Your task to perform on an android device: uninstall "Paramount+ | Peak Streaming" Image 0: 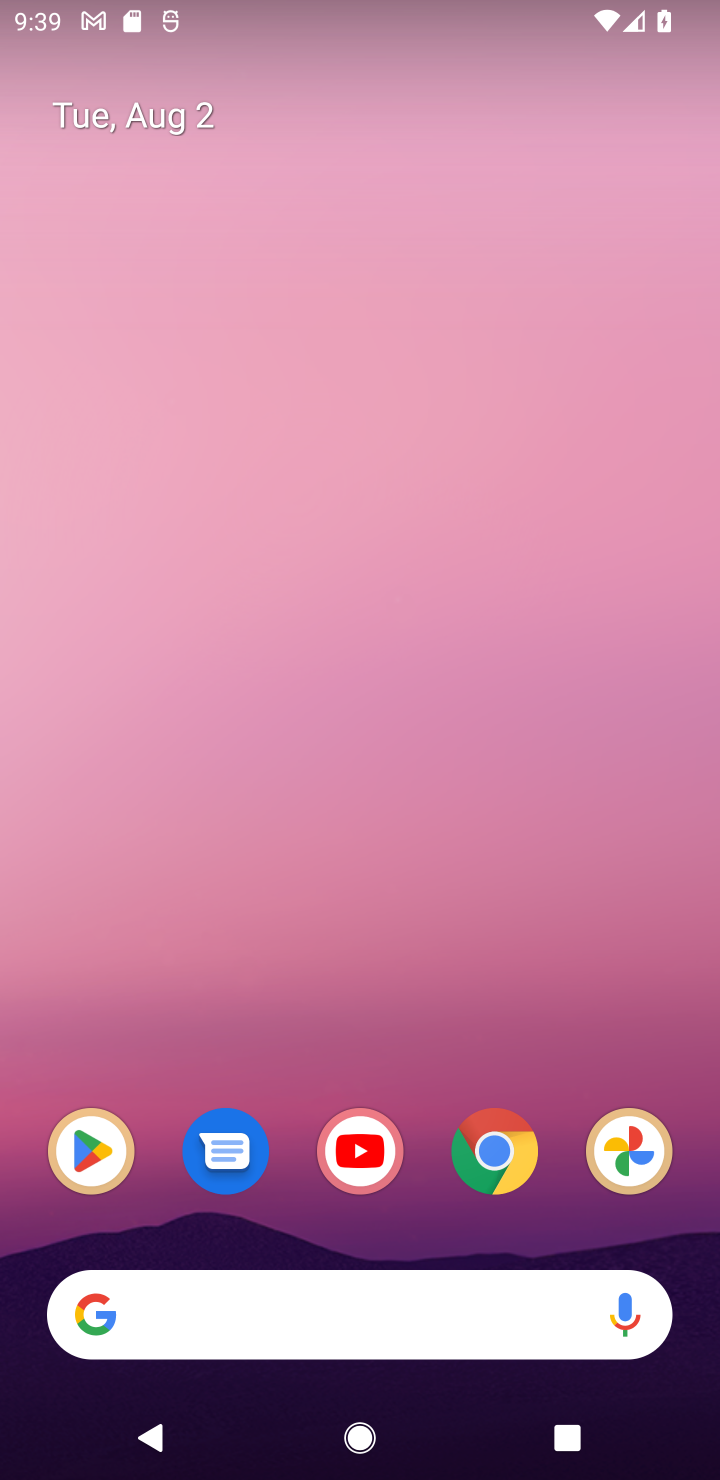
Step 0: click (101, 1153)
Your task to perform on an android device: uninstall "Paramount+ | Peak Streaming" Image 1: 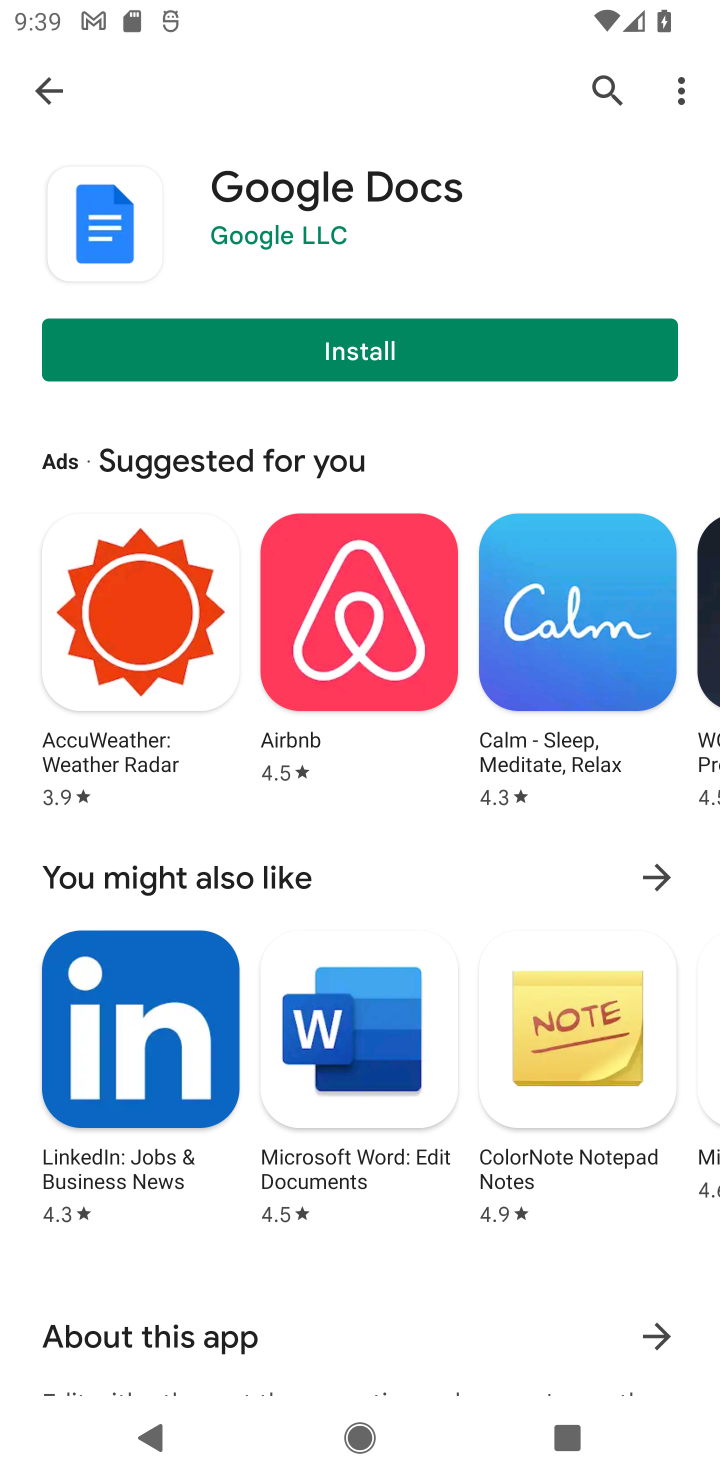
Step 1: click (51, 100)
Your task to perform on an android device: uninstall "Paramount+ | Peak Streaming" Image 2: 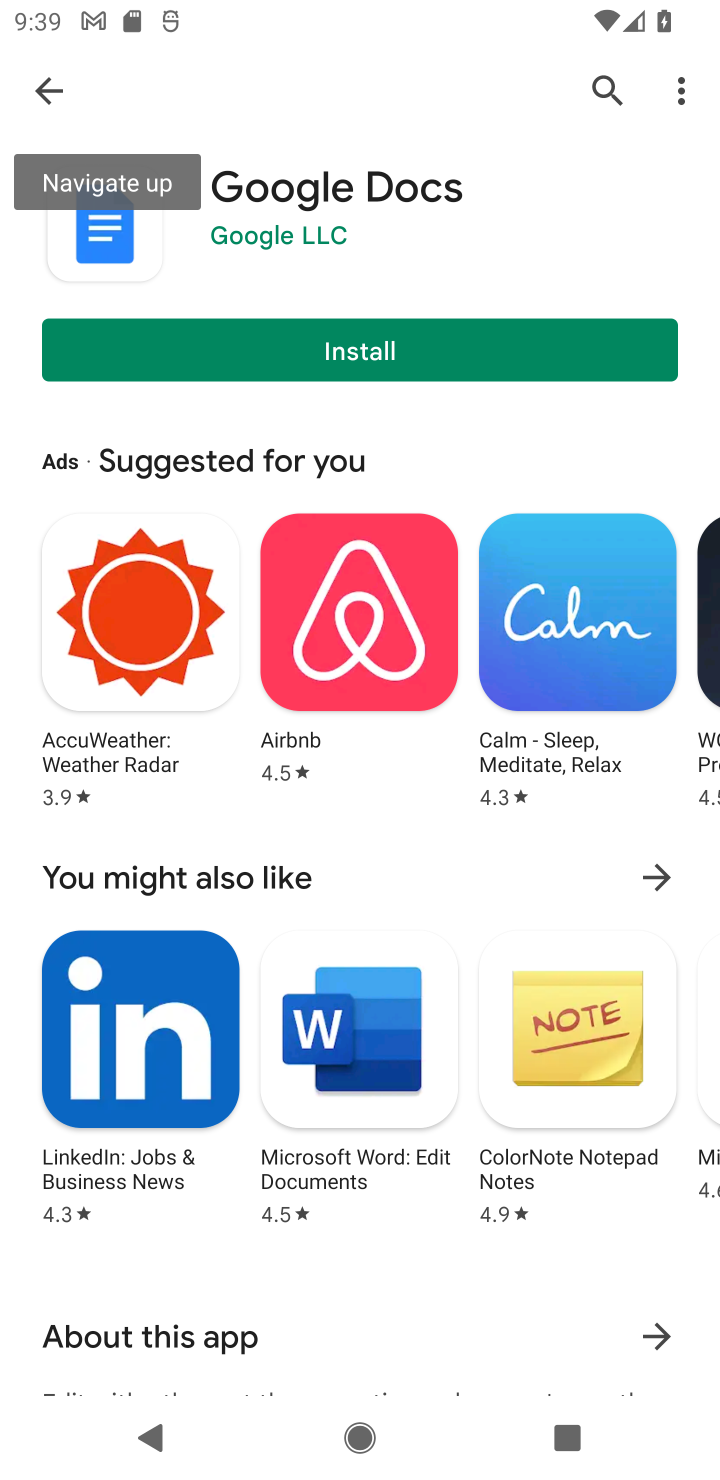
Step 2: click (70, 66)
Your task to perform on an android device: uninstall "Paramount+ | Peak Streaming" Image 3: 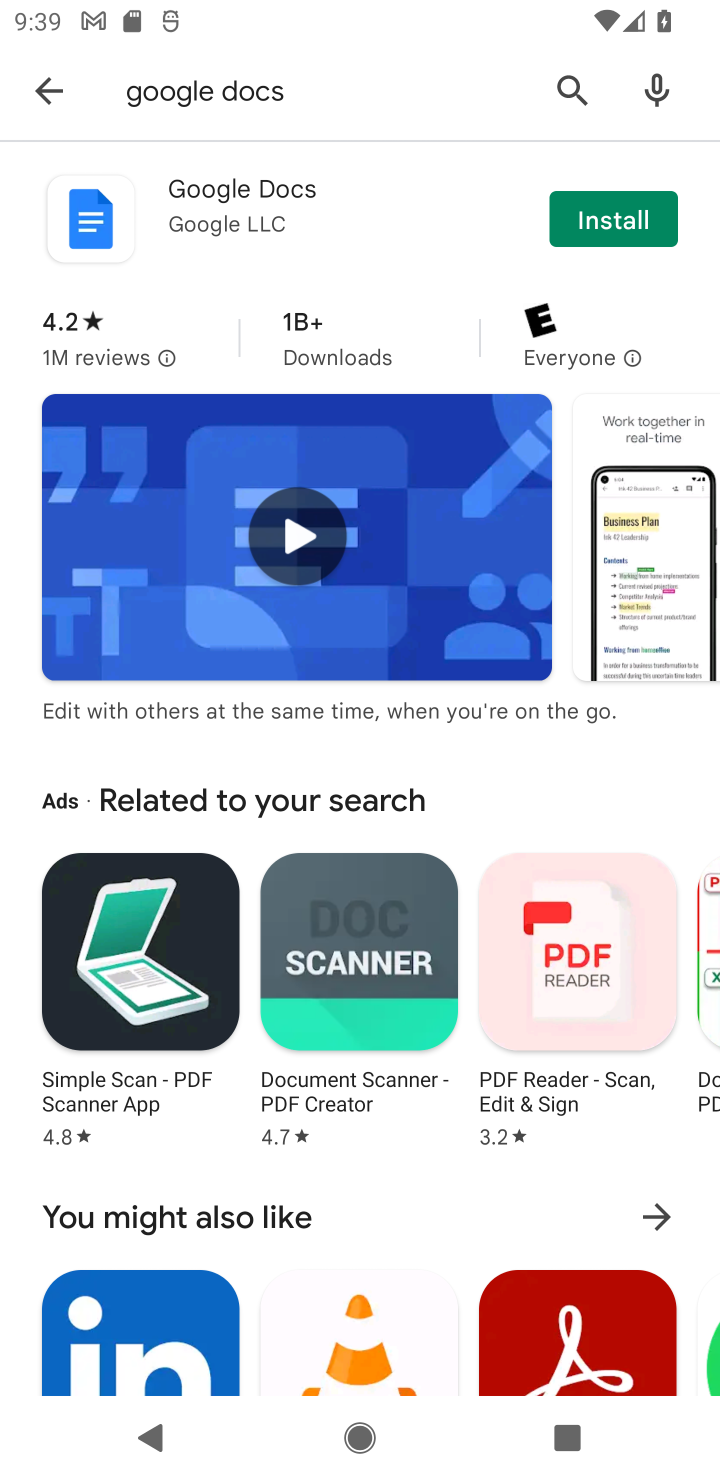
Step 3: click (60, 105)
Your task to perform on an android device: uninstall "Paramount+ | Peak Streaming" Image 4: 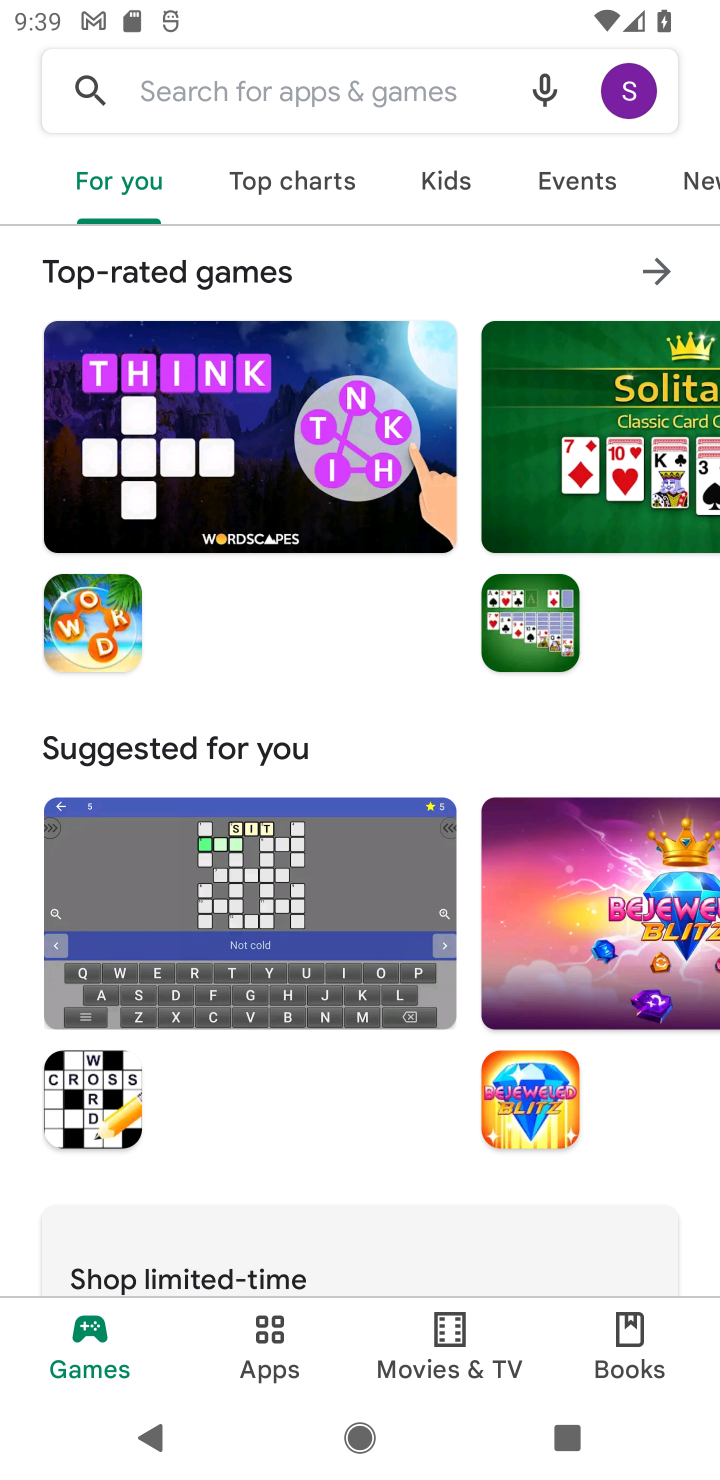
Step 4: click (190, 129)
Your task to perform on an android device: uninstall "Paramount+ | Peak Streaming" Image 5: 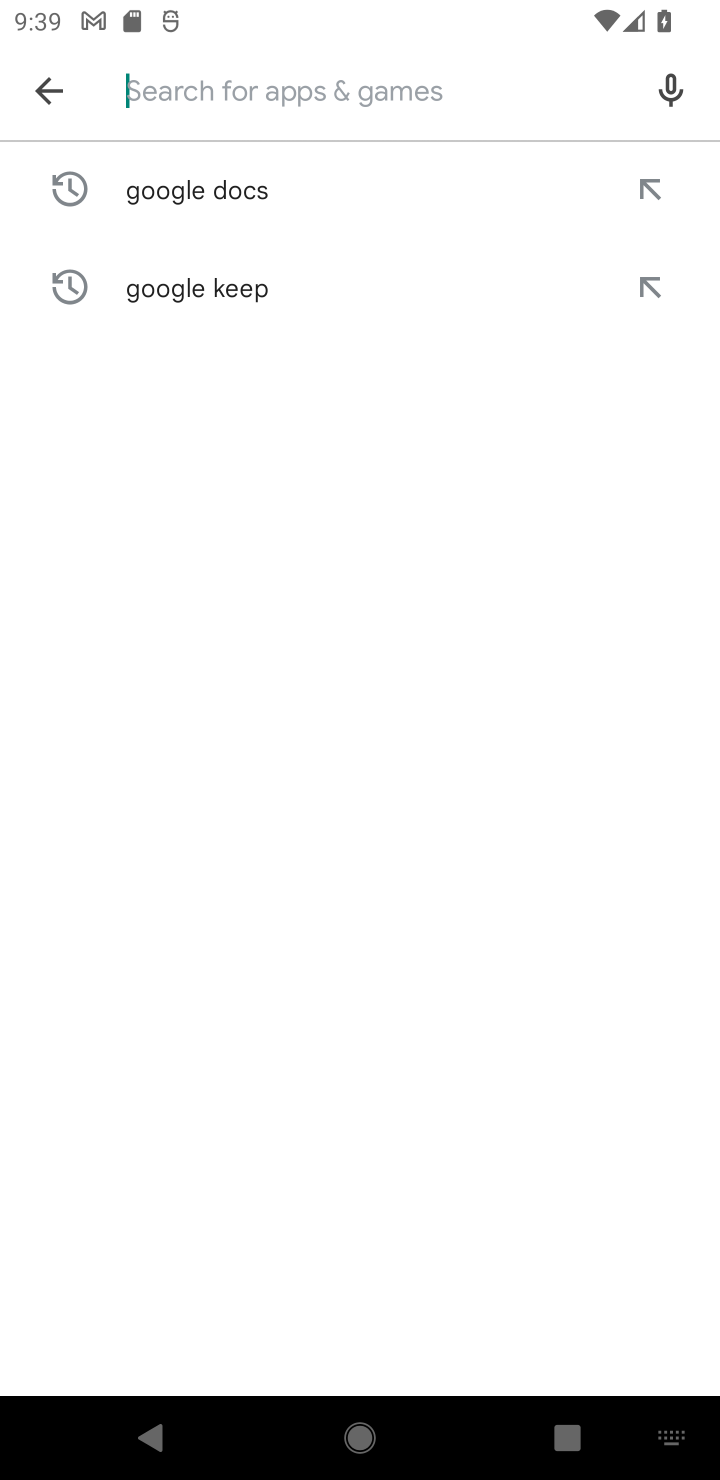
Step 5: click (462, 1464)
Your task to perform on an android device: uninstall "Paramount+ | Peak Streaming" Image 6: 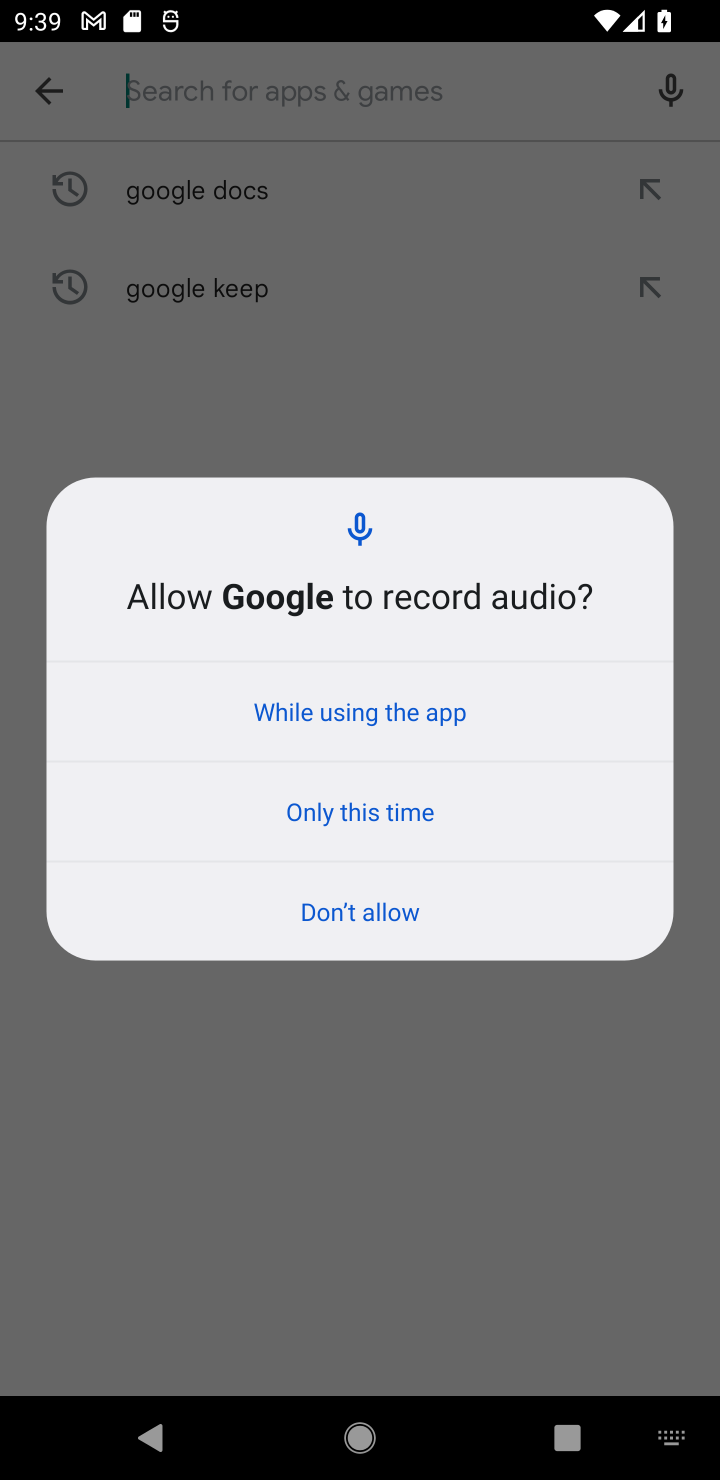
Step 6: click (294, 918)
Your task to perform on an android device: uninstall "Paramount+ | Peak Streaming" Image 7: 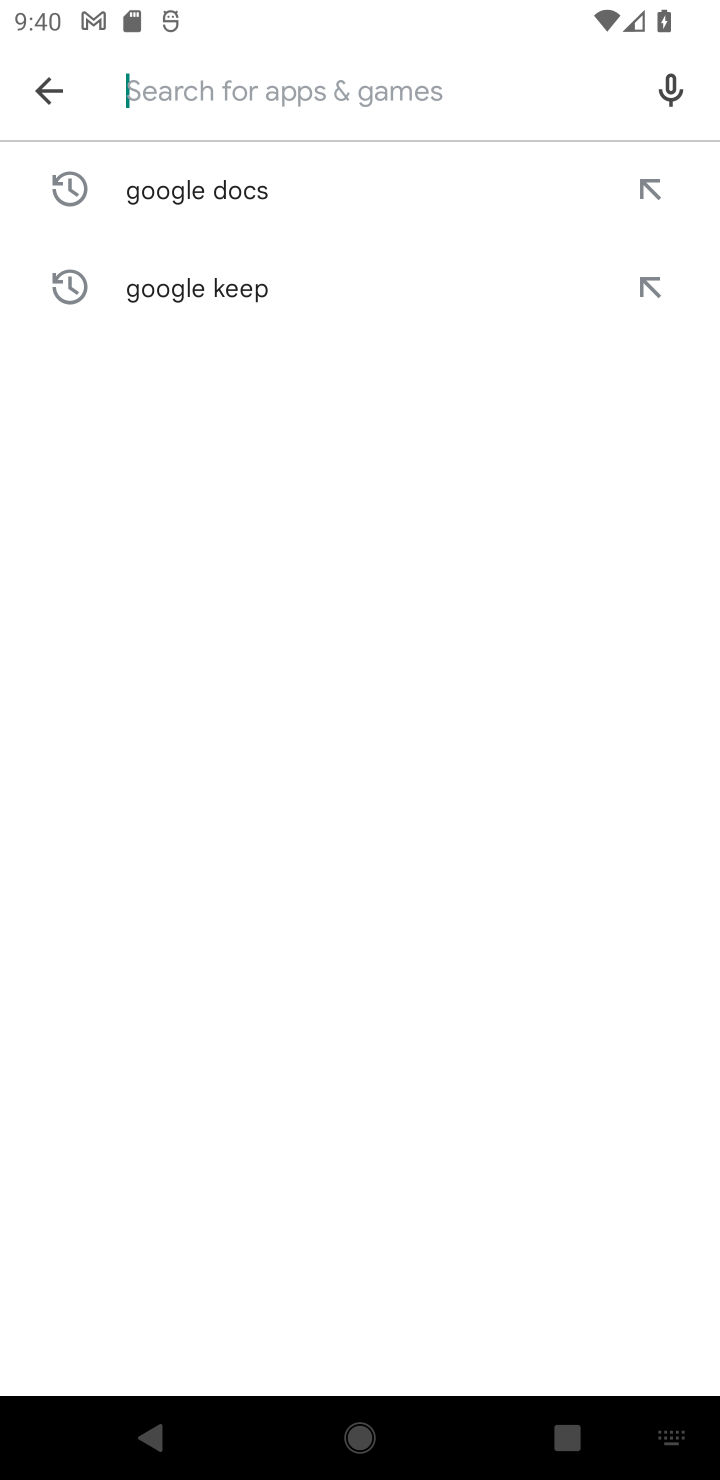
Step 7: type "Paramount+"
Your task to perform on an android device: uninstall "Paramount+ | Peak Streaming" Image 8: 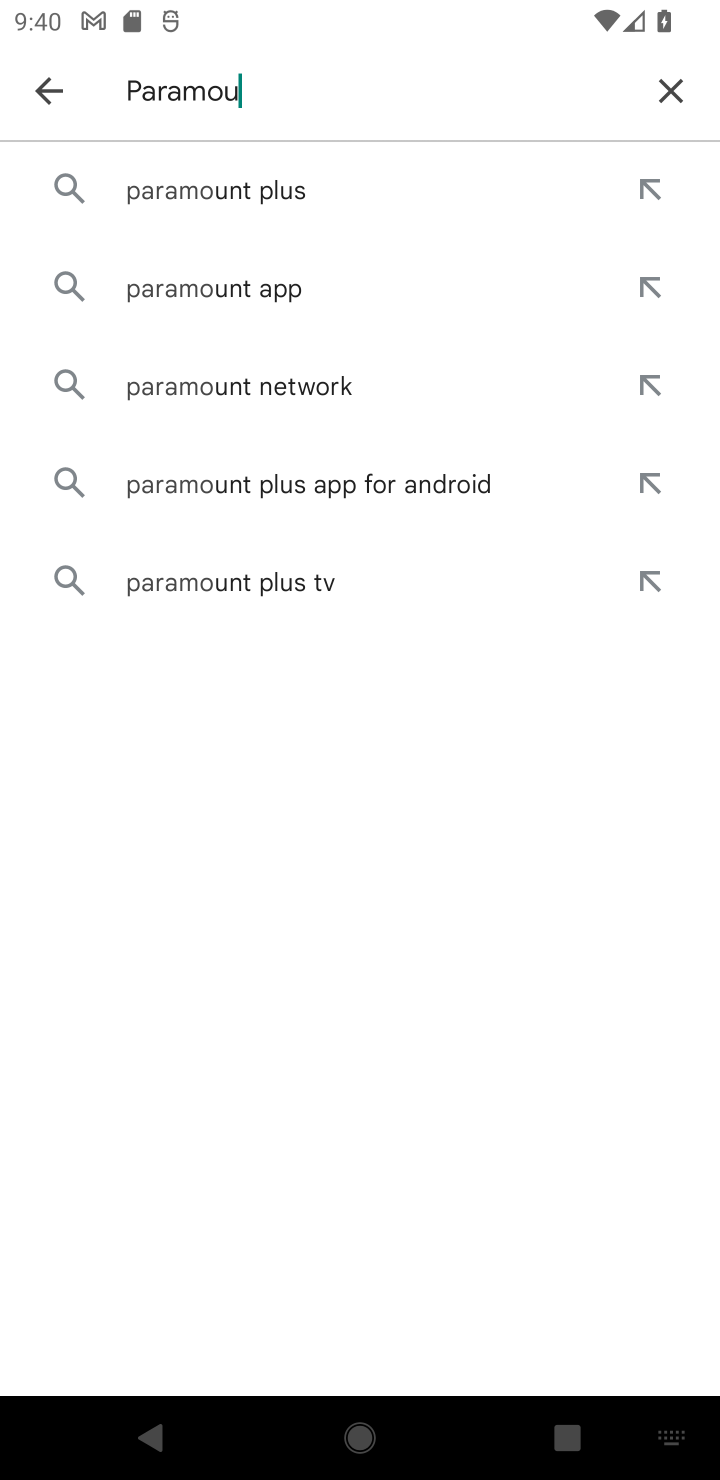
Step 8: type ""
Your task to perform on an android device: uninstall "Paramount+ | Peak Streaming" Image 9: 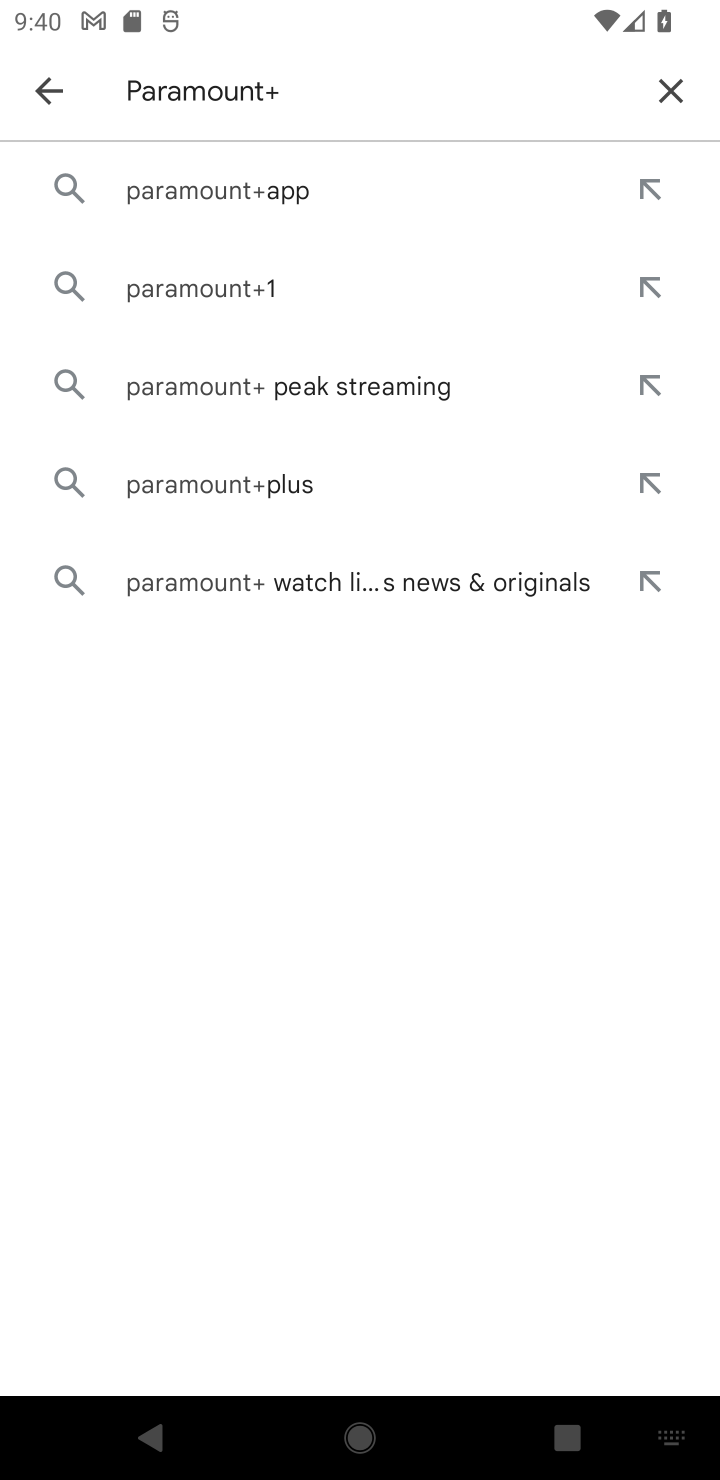
Step 9: click (116, 182)
Your task to perform on an android device: uninstall "Paramount+ | Peak Streaming" Image 10: 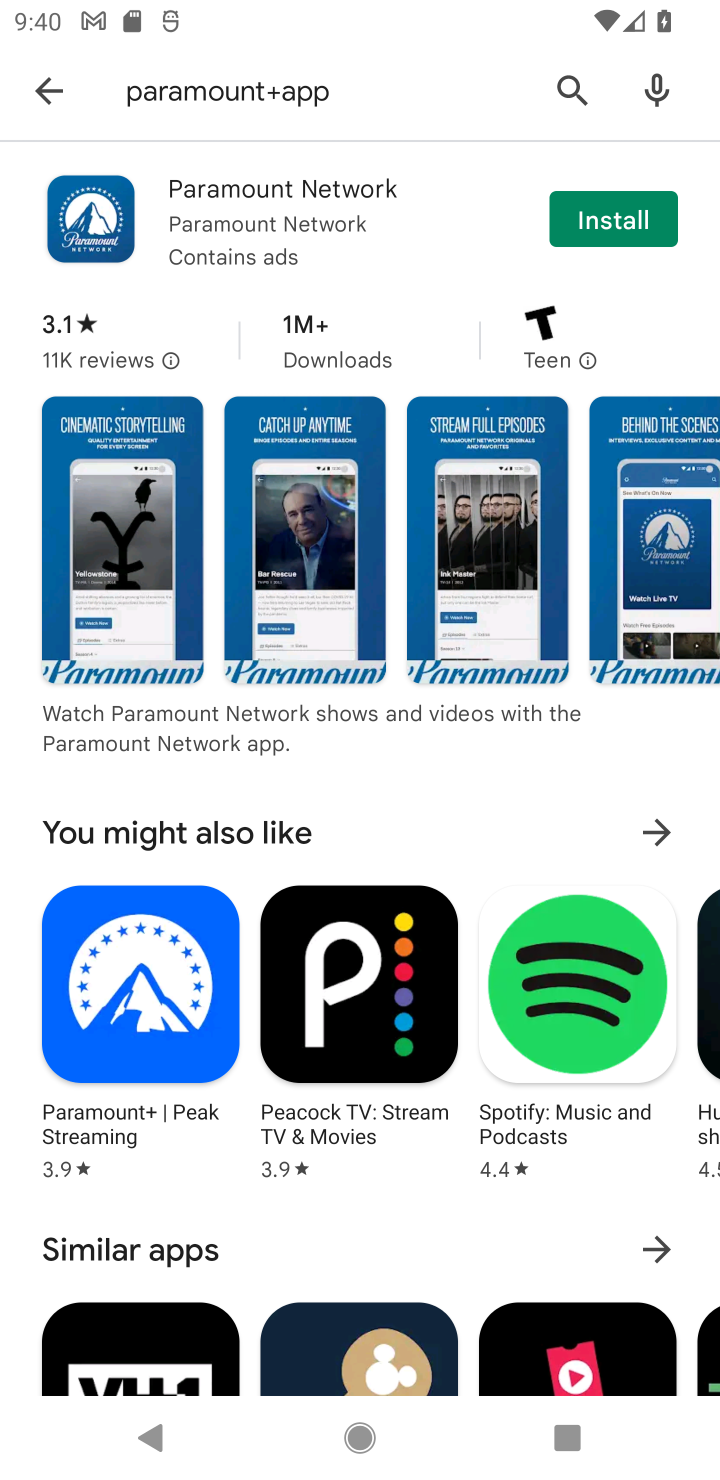
Step 10: task complete